Your task to perform on an android device: turn off notifications in google photos Image 0: 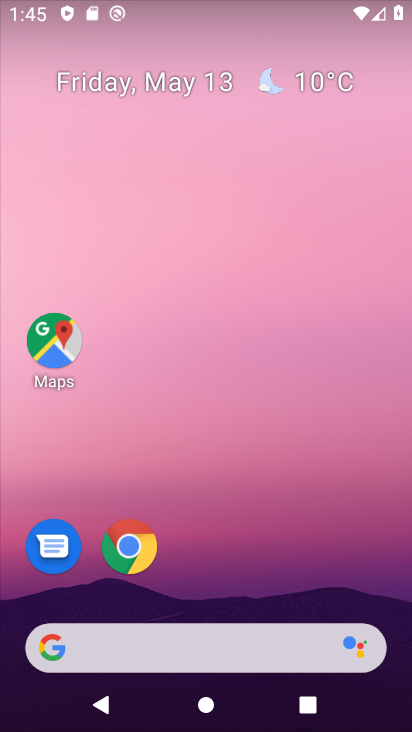
Step 0: drag from (191, 628) to (325, 235)
Your task to perform on an android device: turn off notifications in google photos Image 1: 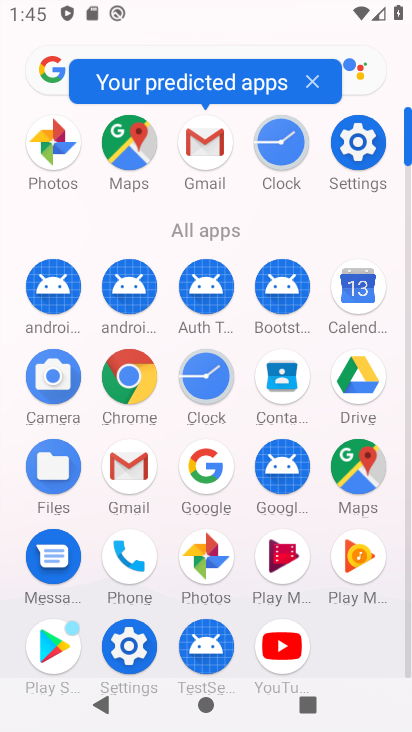
Step 1: click (219, 566)
Your task to perform on an android device: turn off notifications in google photos Image 2: 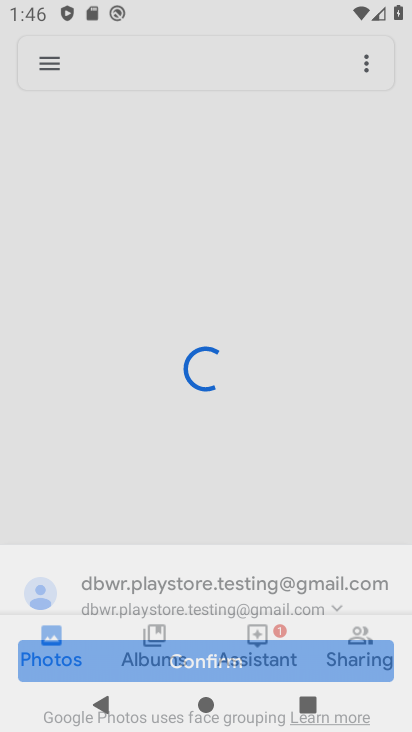
Step 2: click (42, 66)
Your task to perform on an android device: turn off notifications in google photos Image 3: 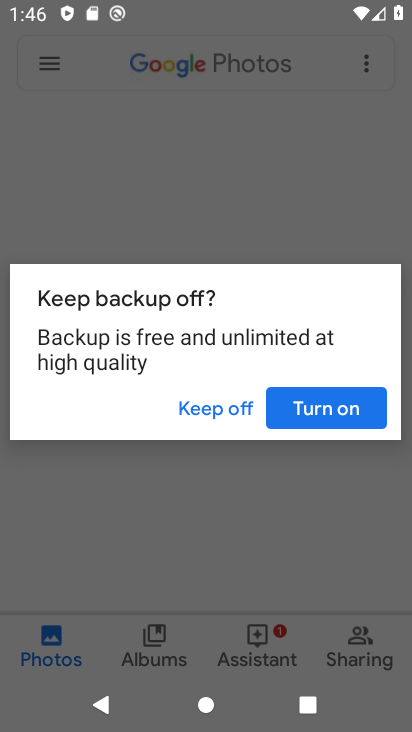
Step 3: click (303, 407)
Your task to perform on an android device: turn off notifications in google photos Image 4: 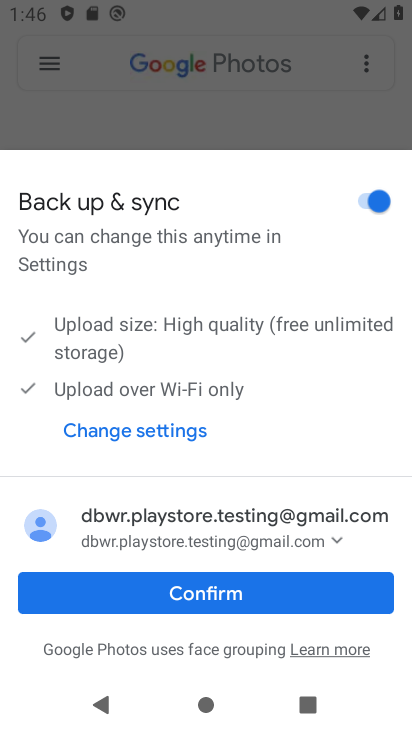
Step 4: click (256, 592)
Your task to perform on an android device: turn off notifications in google photos Image 5: 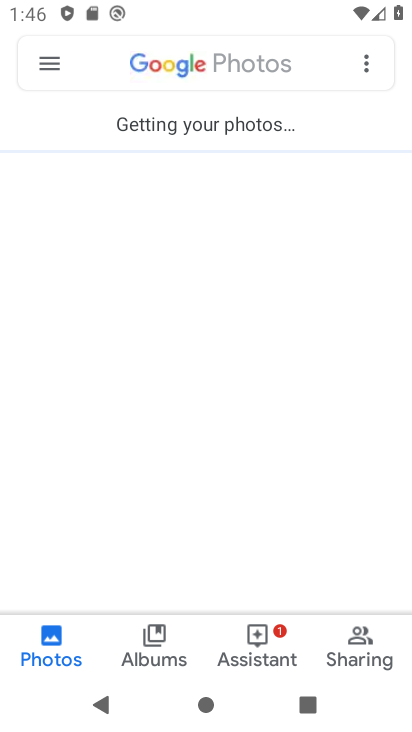
Step 5: click (54, 71)
Your task to perform on an android device: turn off notifications in google photos Image 6: 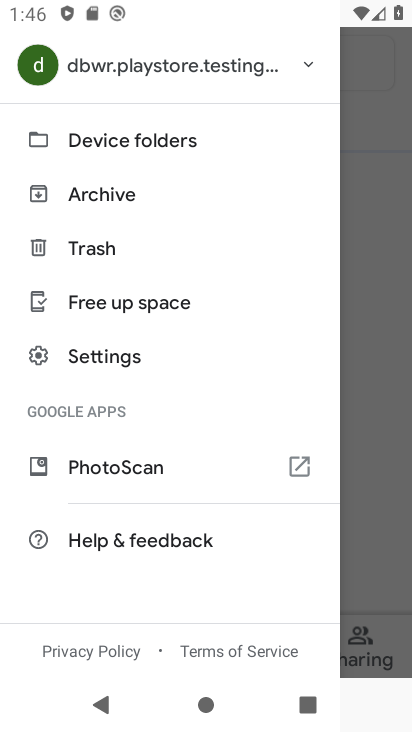
Step 6: click (156, 357)
Your task to perform on an android device: turn off notifications in google photos Image 7: 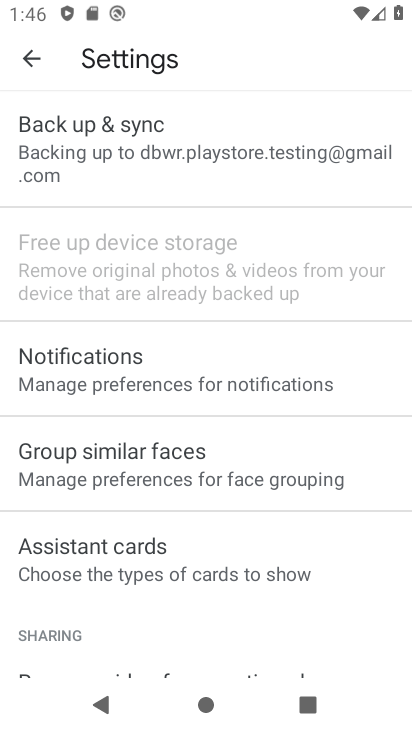
Step 7: click (198, 354)
Your task to perform on an android device: turn off notifications in google photos Image 8: 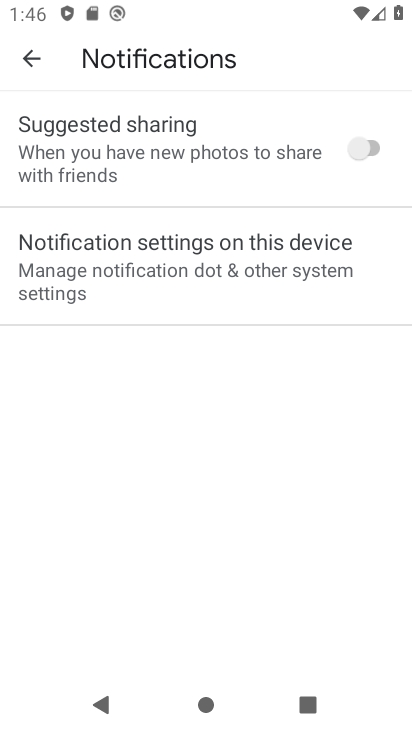
Step 8: click (301, 270)
Your task to perform on an android device: turn off notifications in google photos Image 9: 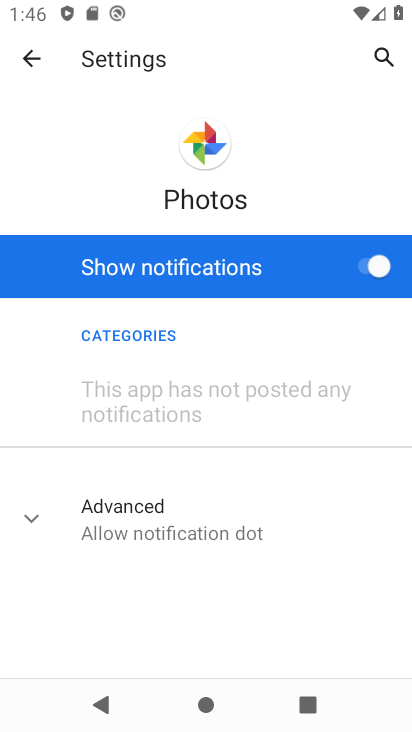
Step 9: click (368, 268)
Your task to perform on an android device: turn off notifications in google photos Image 10: 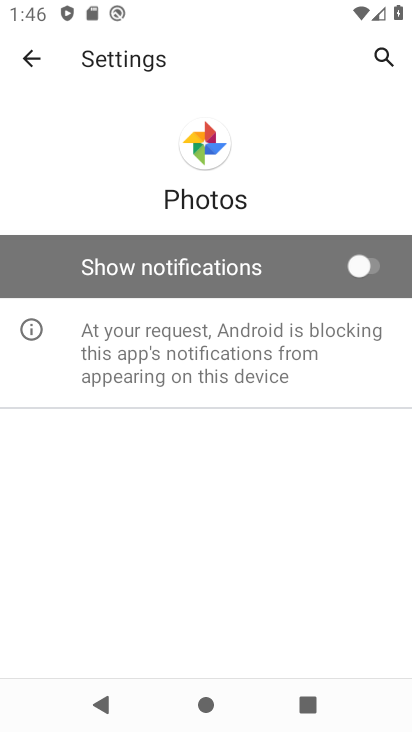
Step 10: task complete